Your task to perform on an android device: open app "Roku - Official Remote Control" (install if not already installed) Image 0: 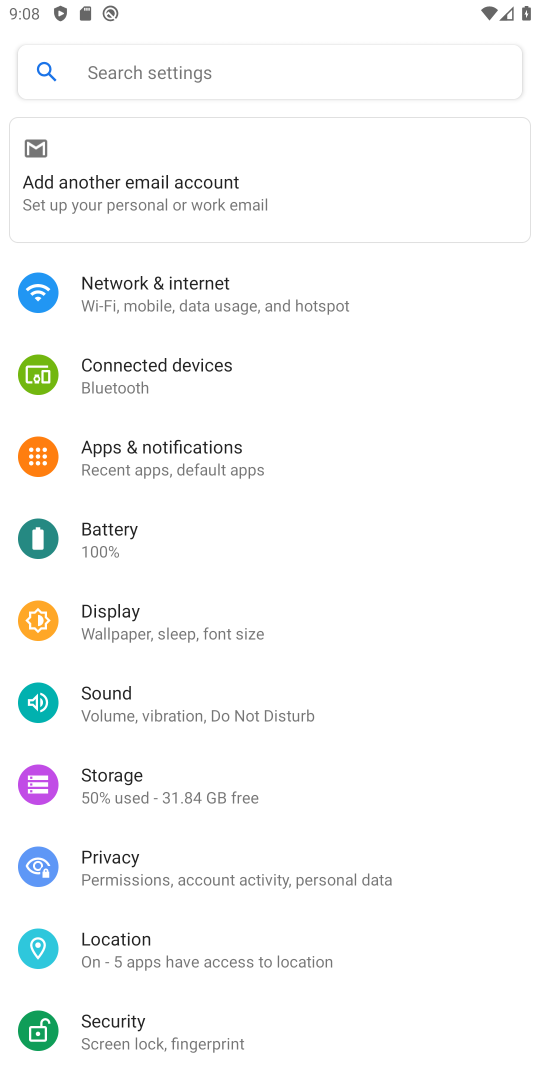
Step 0: press home button
Your task to perform on an android device: open app "Roku - Official Remote Control" (install if not already installed) Image 1: 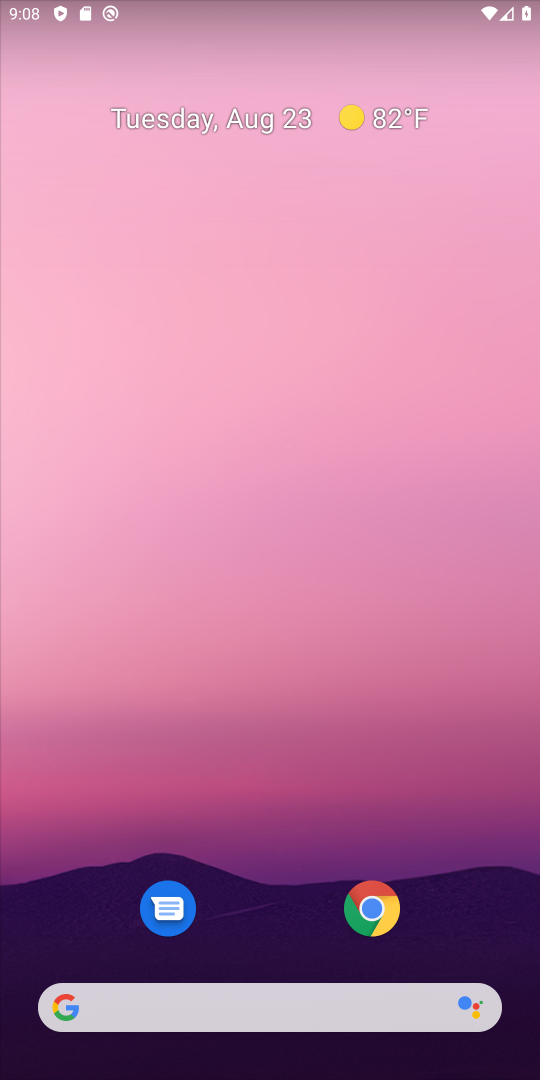
Step 1: drag from (268, 927) to (255, 0)
Your task to perform on an android device: open app "Roku - Official Remote Control" (install if not already installed) Image 2: 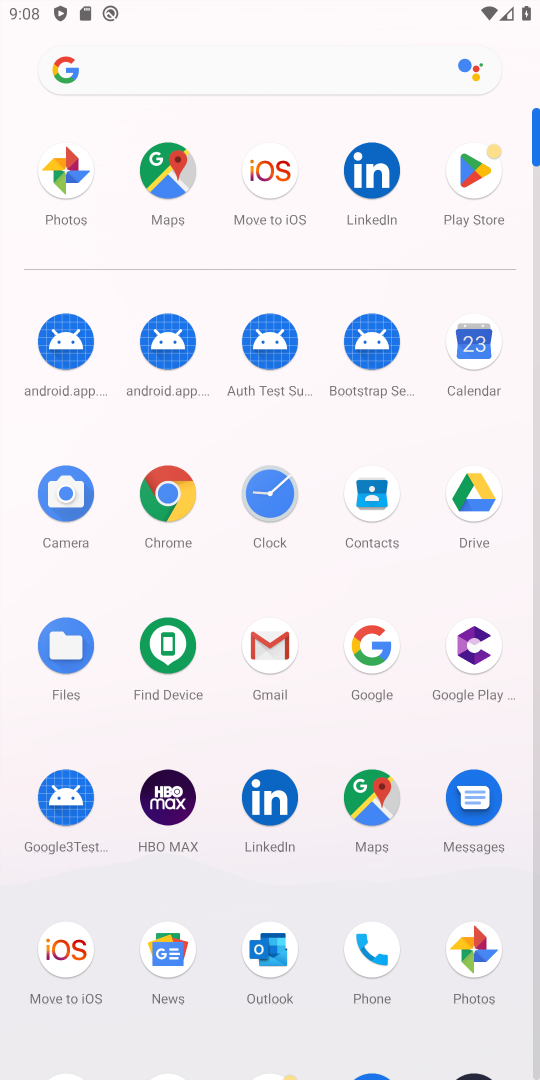
Step 2: click (471, 230)
Your task to perform on an android device: open app "Roku - Official Remote Control" (install if not already installed) Image 3: 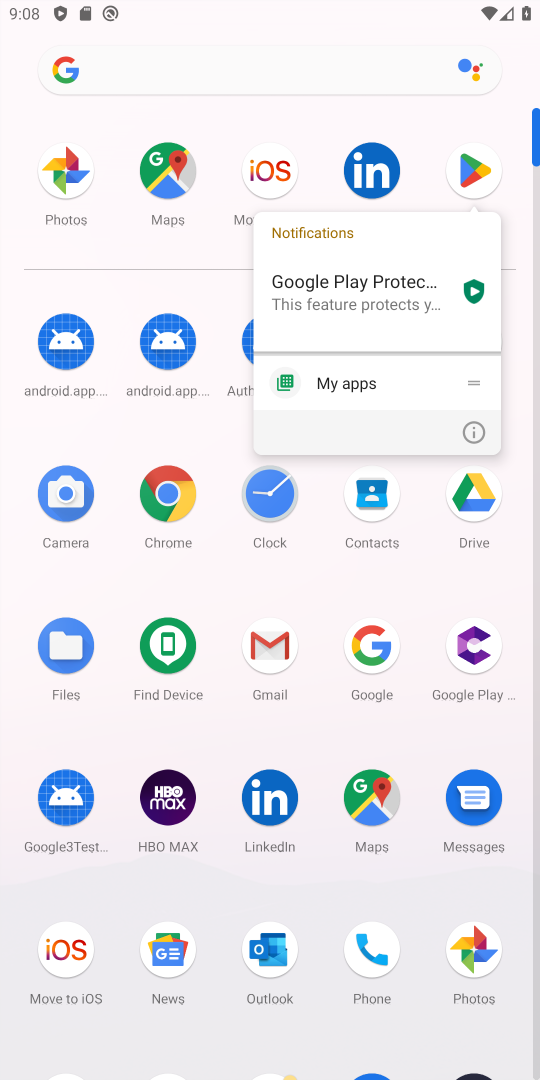
Step 3: click (469, 167)
Your task to perform on an android device: open app "Roku - Official Remote Control" (install if not already installed) Image 4: 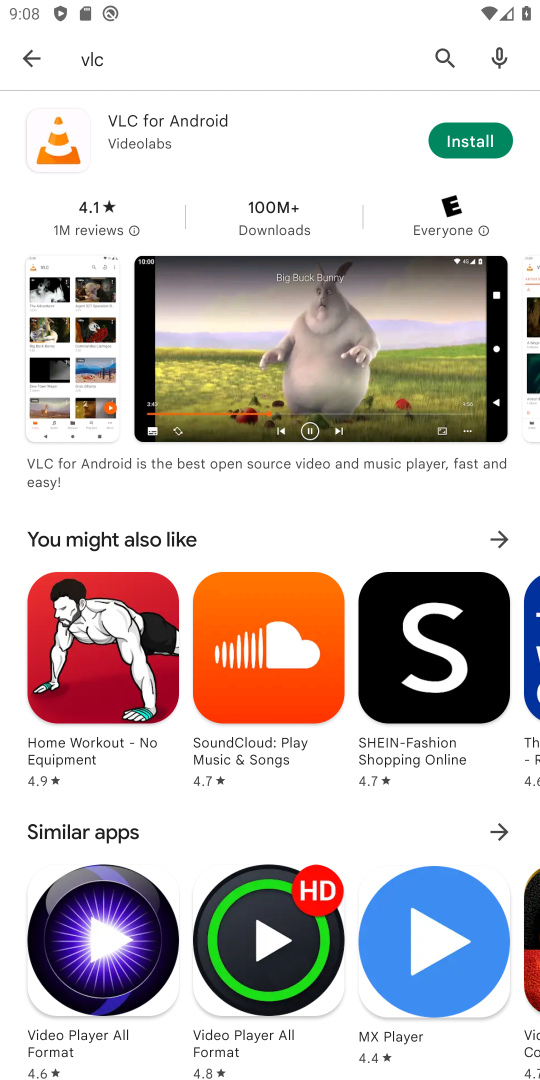
Step 4: click (119, 60)
Your task to perform on an android device: open app "Roku - Official Remote Control" (install if not already installed) Image 5: 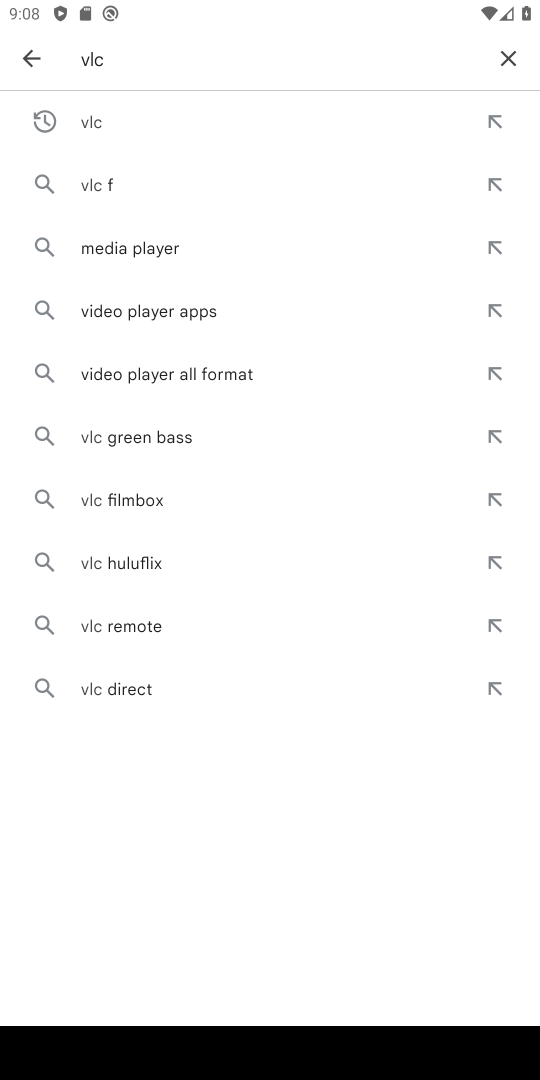
Step 5: click (509, 62)
Your task to perform on an android device: open app "Roku - Official Remote Control" (install if not already installed) Image 6: 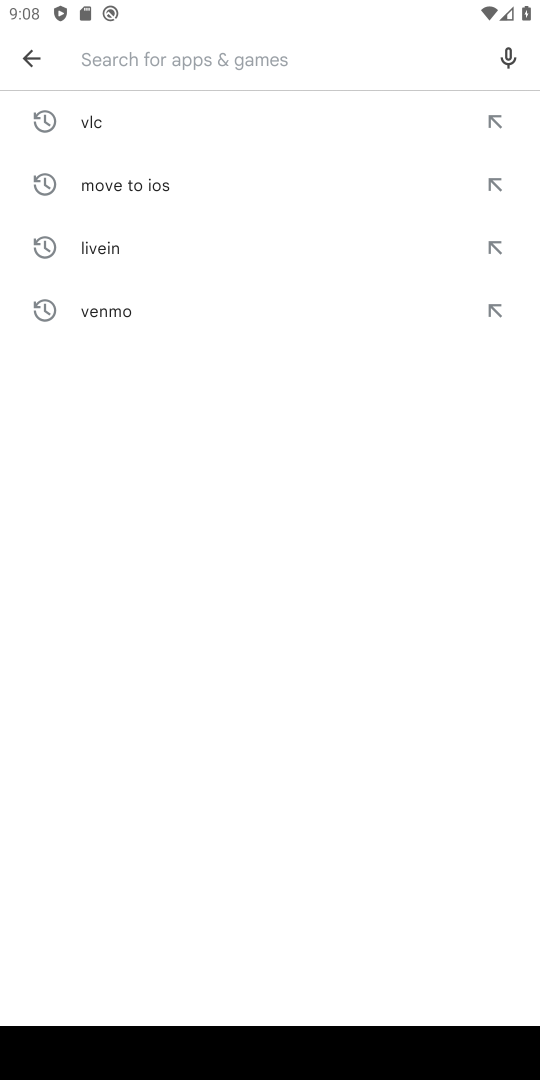
Step 6: type "roku"
Your task to perform on an android device: open app "Roku - Official Remote Control" (install if not already installed) Image 7: 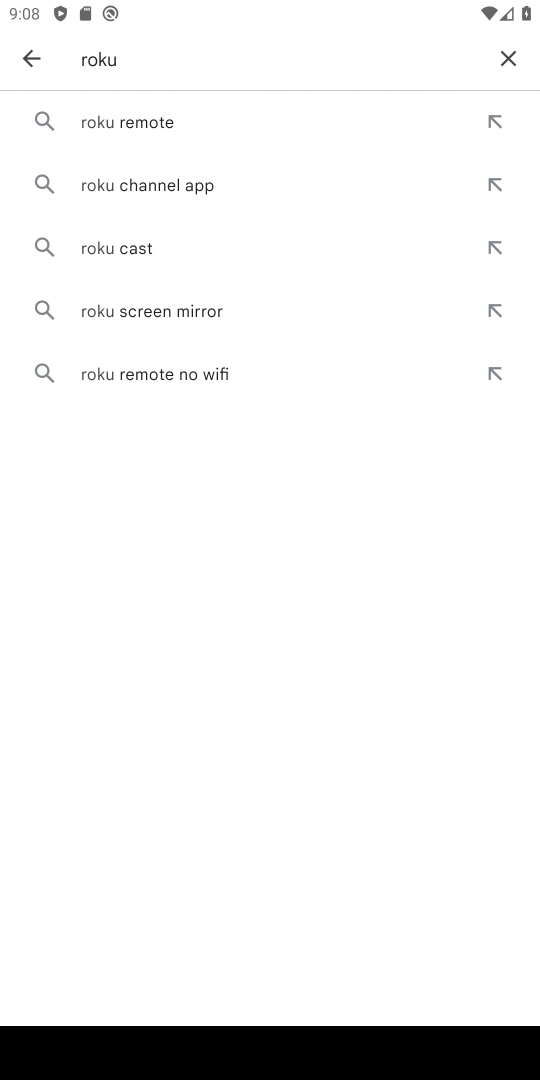
Step 7: click (85, 126)
Your task to perform on an android device: open app "Roku - Official Remote Control" (install if not already installed) Image 8: 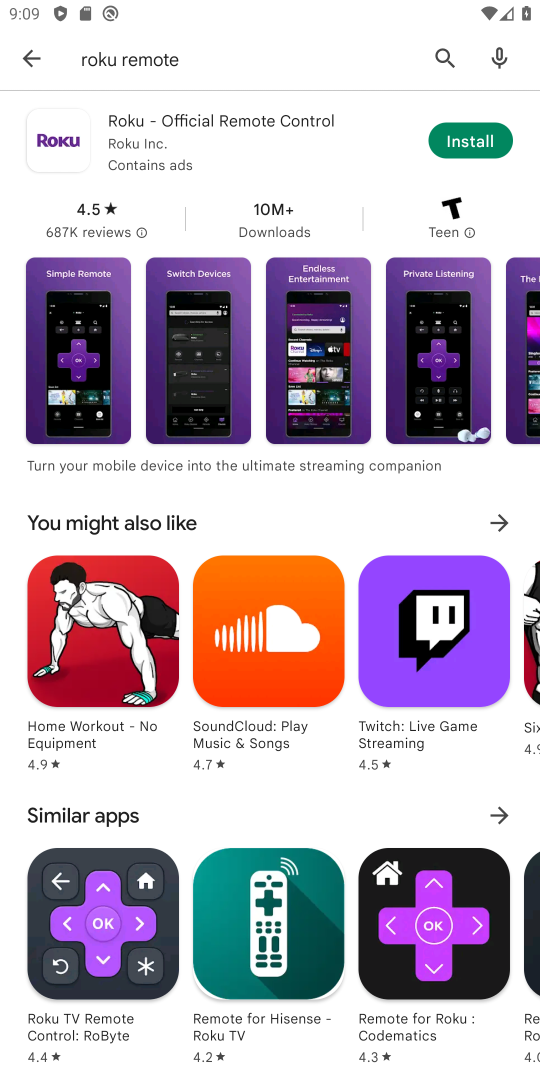
Step 8: click (472, 148)
Your task to perform on an android device: open app "Roku - Official Remote Control" (install if not already installed) Image 9: 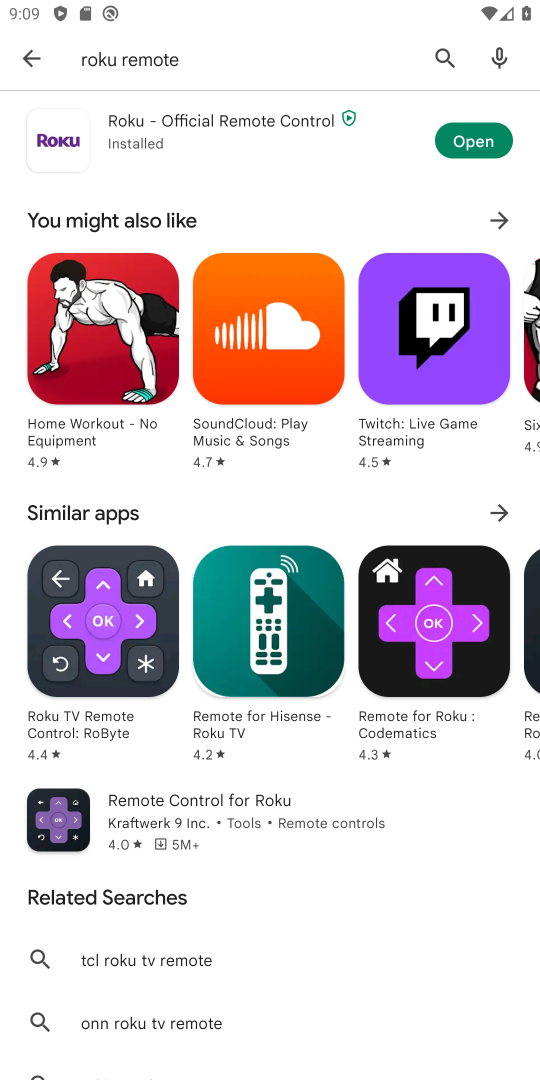
Step 9: click (482, 138)
Your task to perform on an android device: open app "Roku - Official Remote Control" (install if not already installed) Image 10: 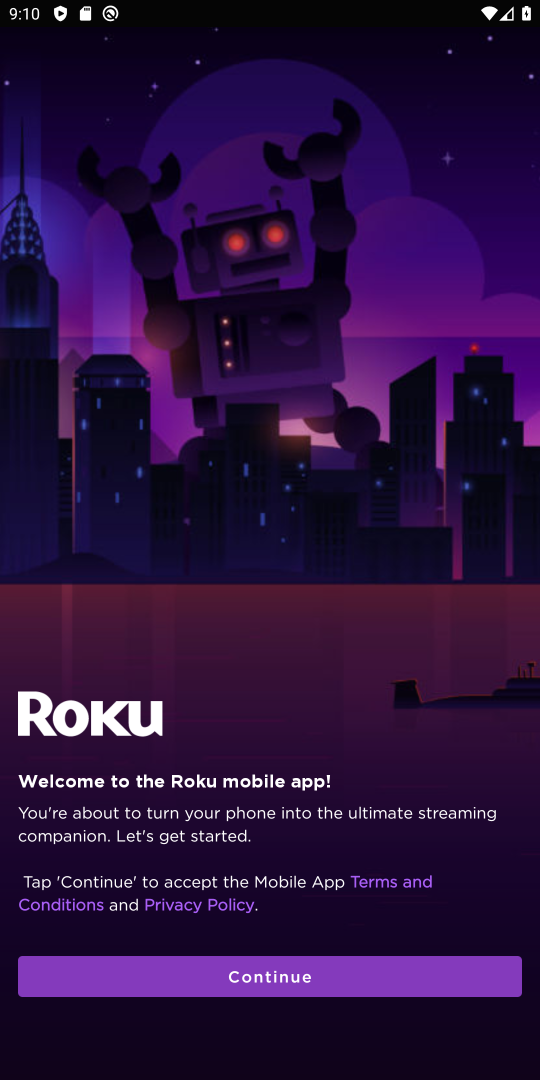
Step 10: click (303, 972)
Your task to perform on an android device: open app "Roku - Official Remote Control" (install if not already installed) Image 11: 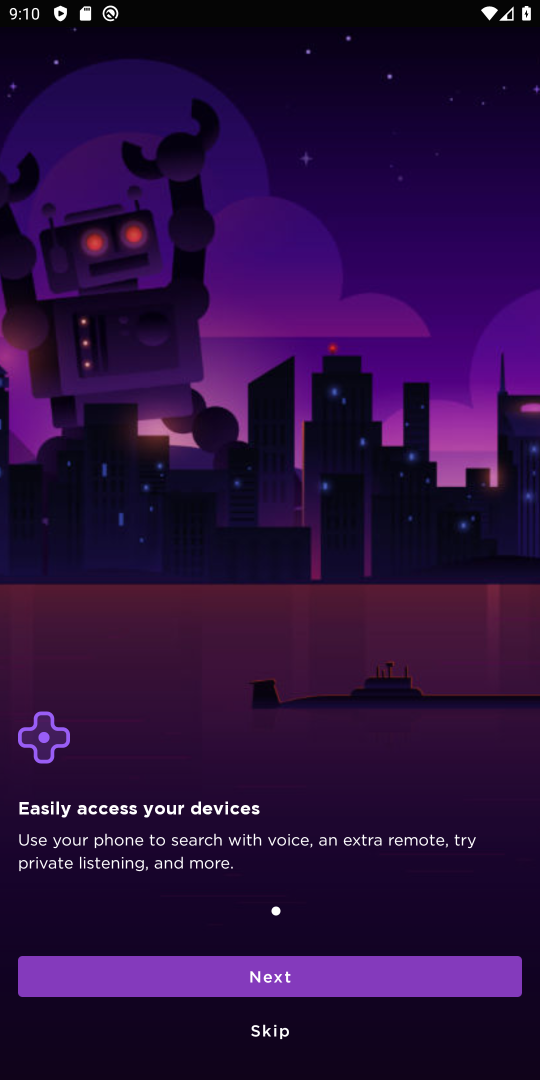
Step 11: click (302, 970)
Your task to perform on an android device: open app "Roku - Official Remote Control" (install if not already installed) Image 12: 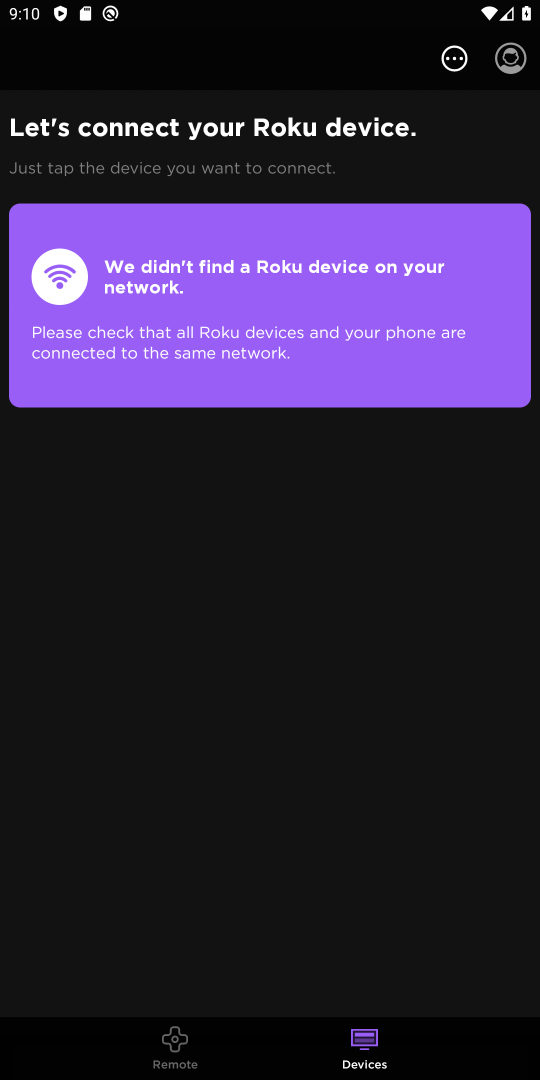
Step 12: task complete